Your task to perform on an android device: What is the capital of Italy? Image 0: 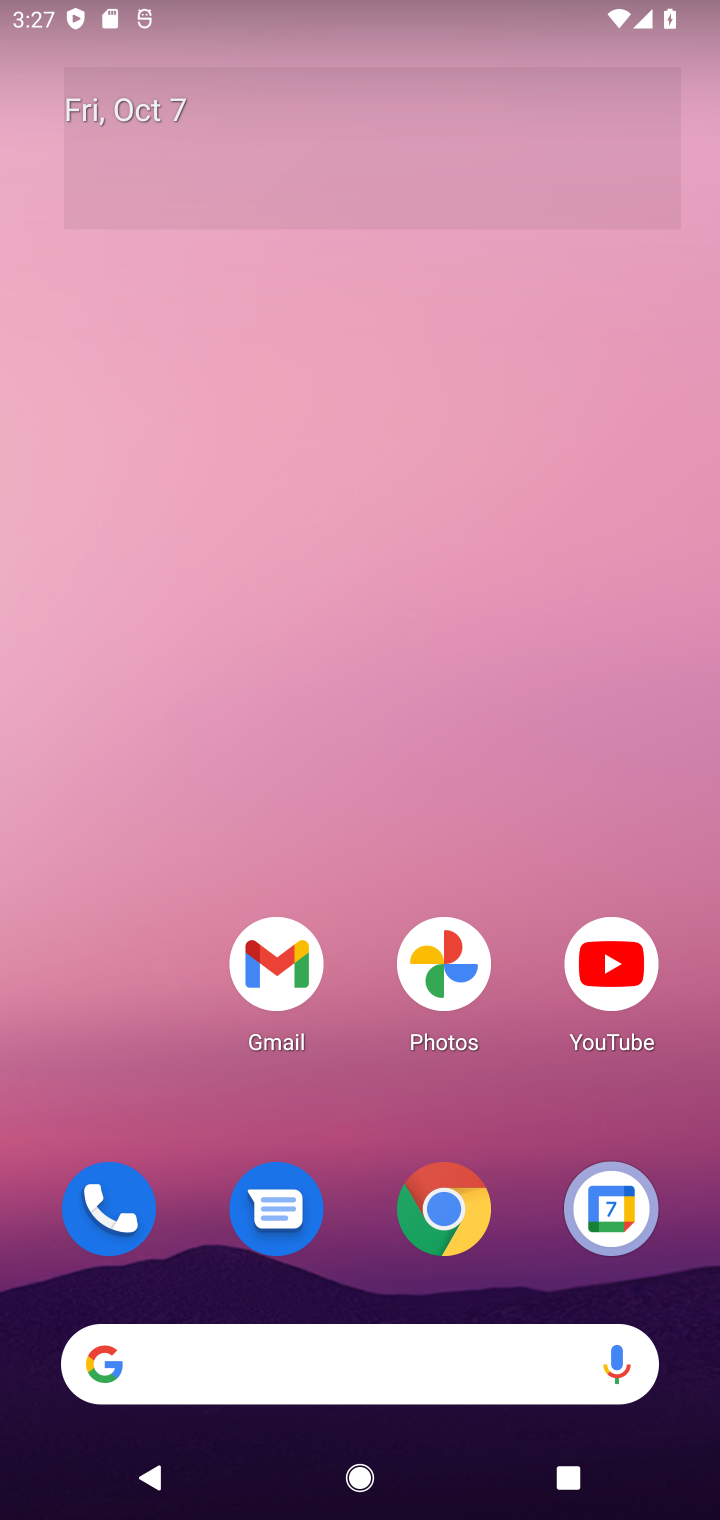
Step 0: press home button
Your task to perform on an android device: What is the capital of Italy? Image 1: 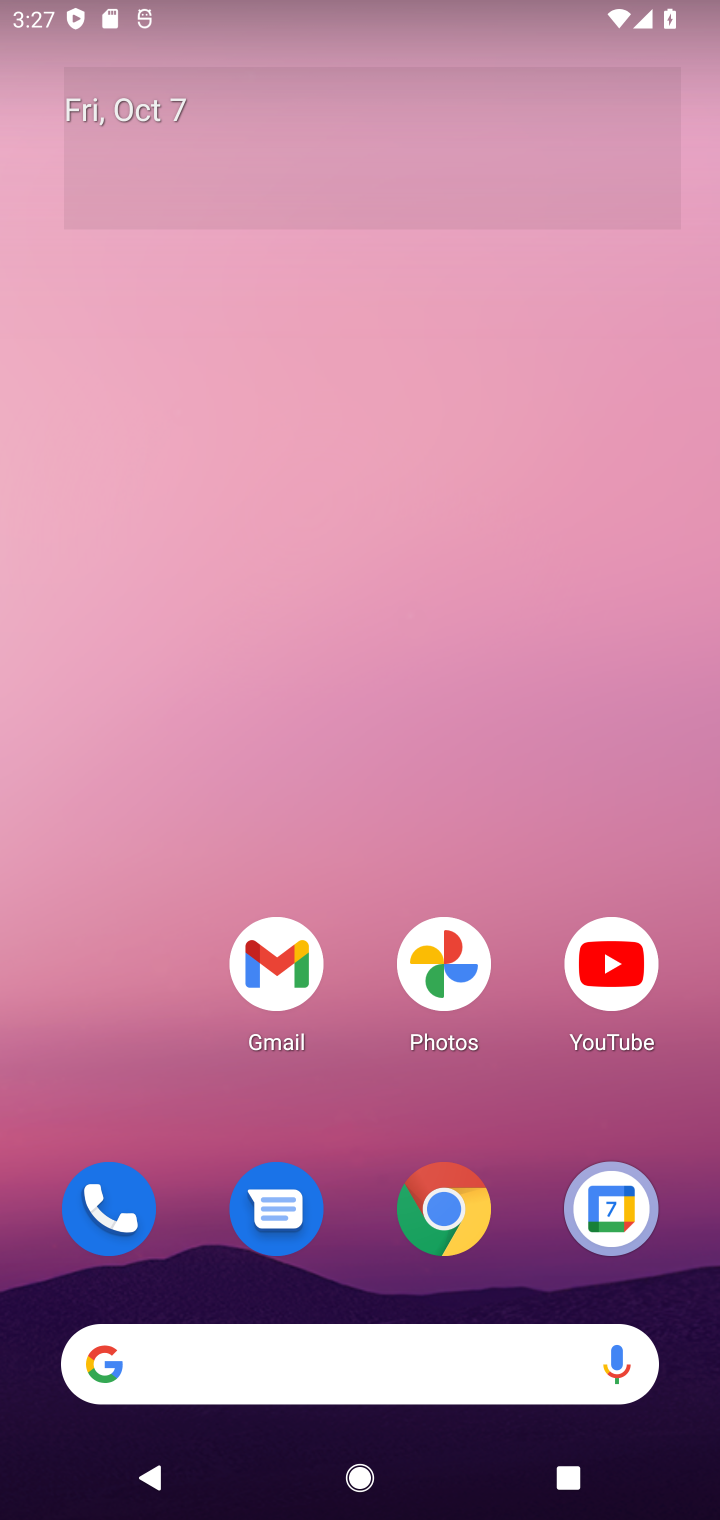
Step 1: click (361, 1362)
Your task to perform on an android device: What is the capital of Italy? Image 2: 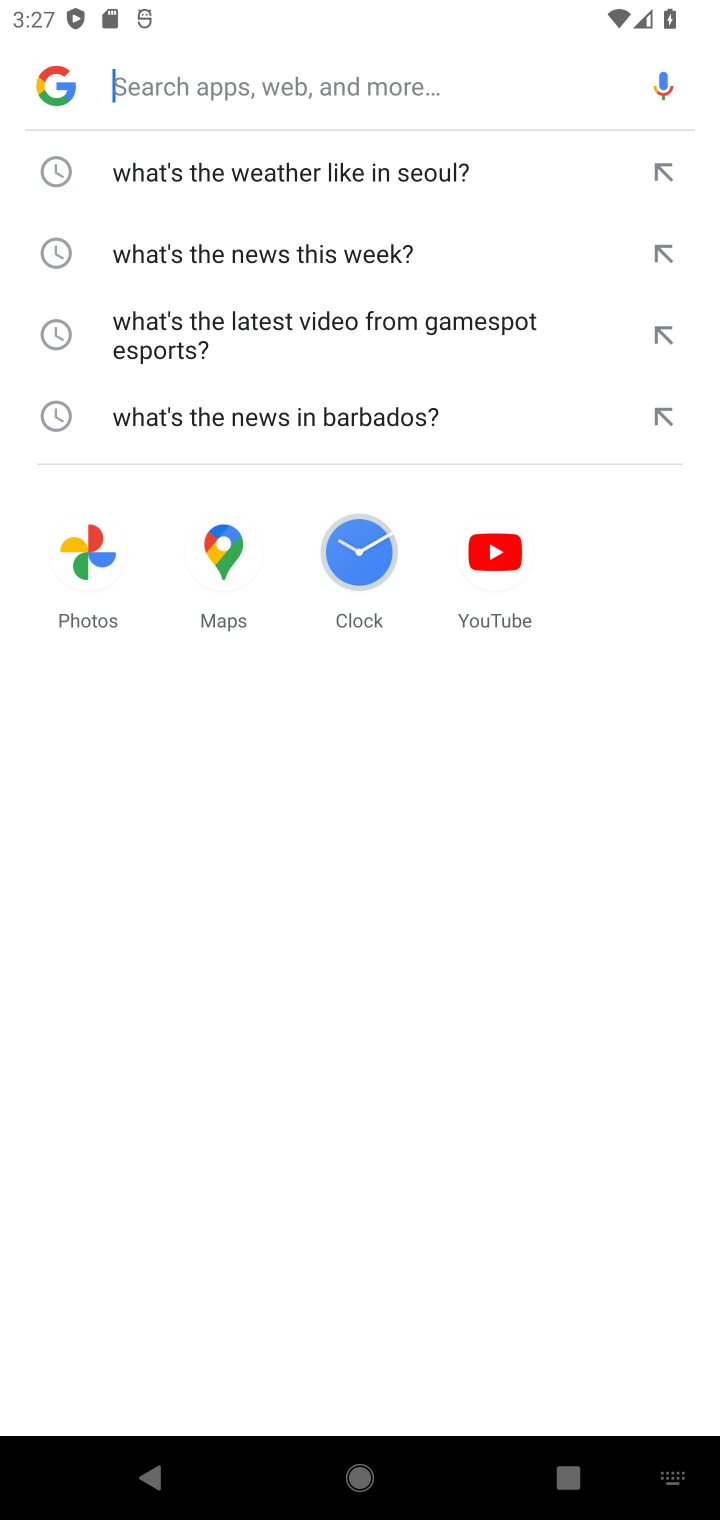
Step 2: type "What is the capital of Italy?"
Your task to perform on an android device: What is the capital of Italy? Image 3: 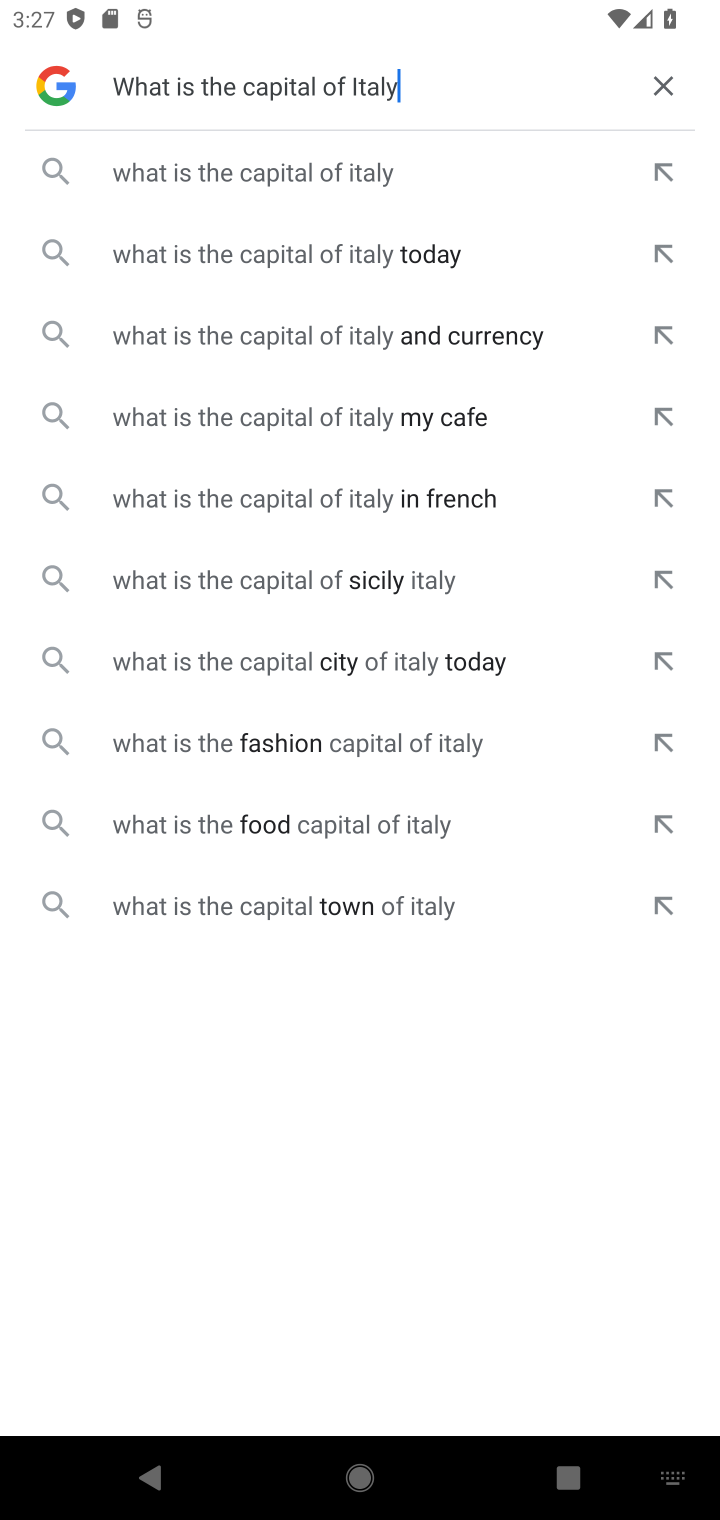
Step 3: press enter
Your task to perform on an android device: What is the capital of Italy? Image 4: 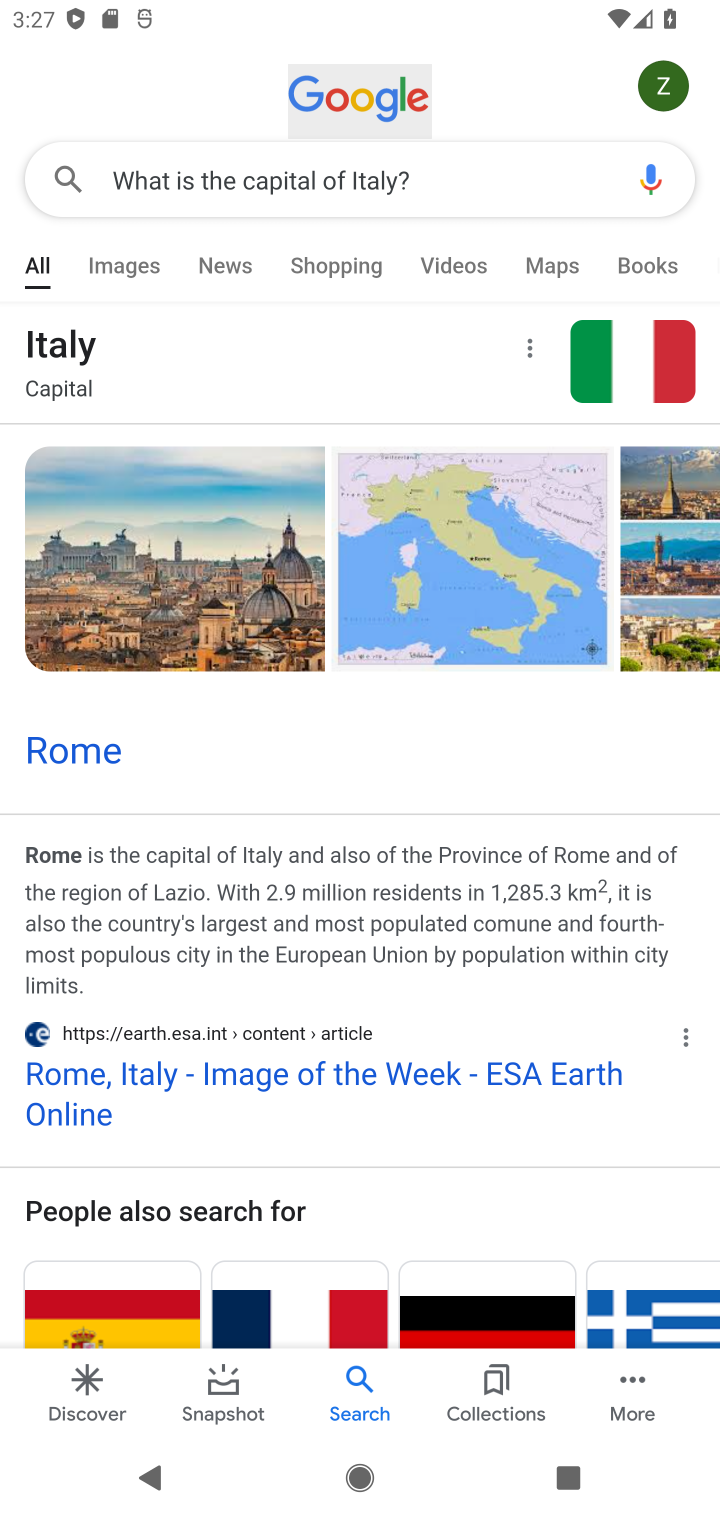
Step 4: task complete